Your task to perform on an android device: add a contact in the contacts app Image 0: 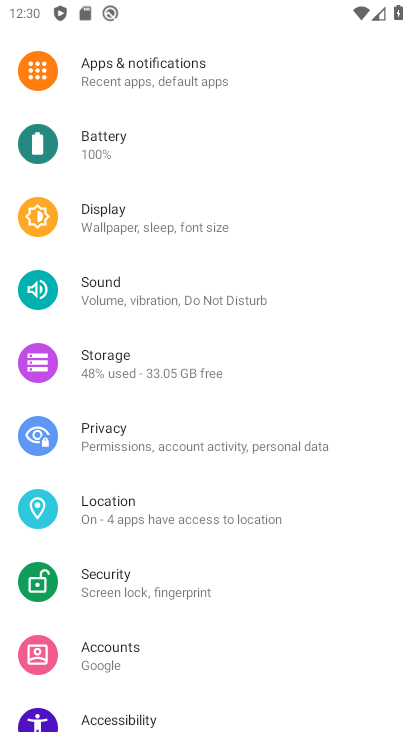
Step 0: press home button
Your task to perform on an android device: add a contact in the contacts app Image 1: 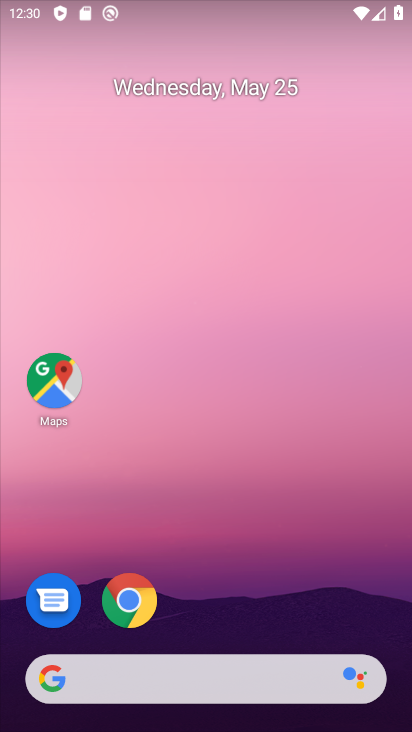
Step 1: drag from (290, 622) to (232, 258)
Your task to perform on an android device: add a contact in the contacts app Image 2: 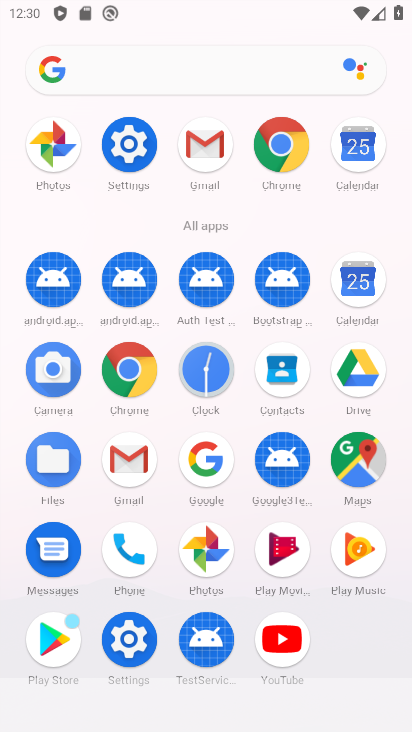
Step 2: click (283, 384)
Your task to perform on an android device: add a contact in the contacts app Image 3: 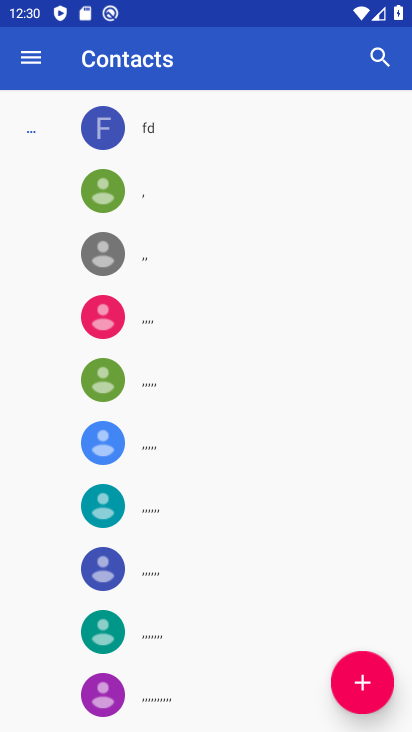
Step 3: click (356, 674)
Your task to perform on an android device: add a contact in the contacts app Image 4: 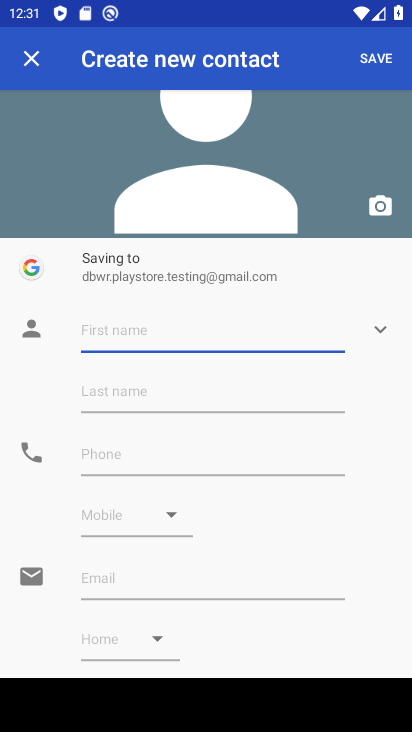
Step 4: type "bhkbkh"
Your task to perform on an android device: add a contact in the contacts app Image 5: 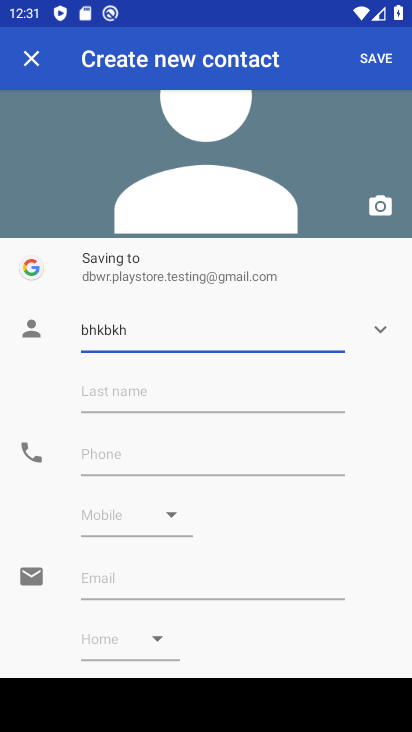
Step 5: click (267, 461)
Your task to perform on an android device: add a contact in the contacts app Image 6: 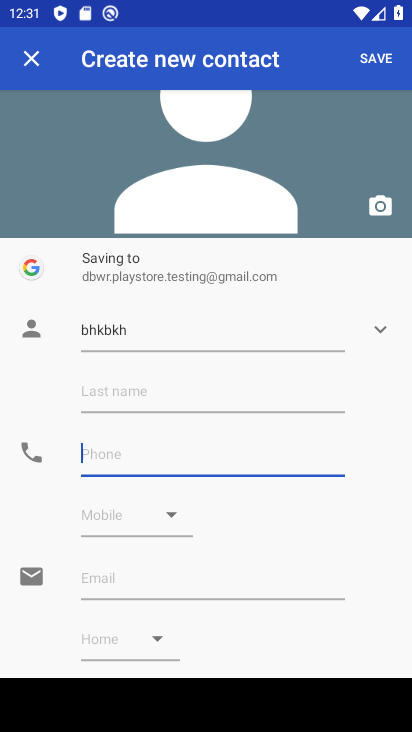
Step 6: type "98u8798879"
Your task to perform on an android device: add a contact in the contacts app Image 7: 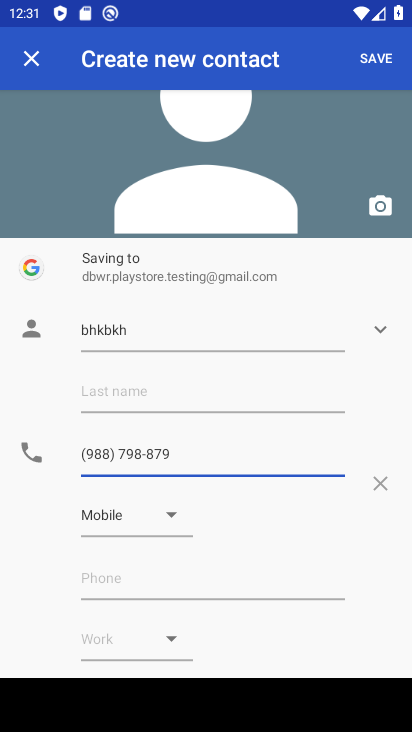
Step 7: click (381, 65)
Your task to perform on an android device: add a contact in the contacts app Image 8: 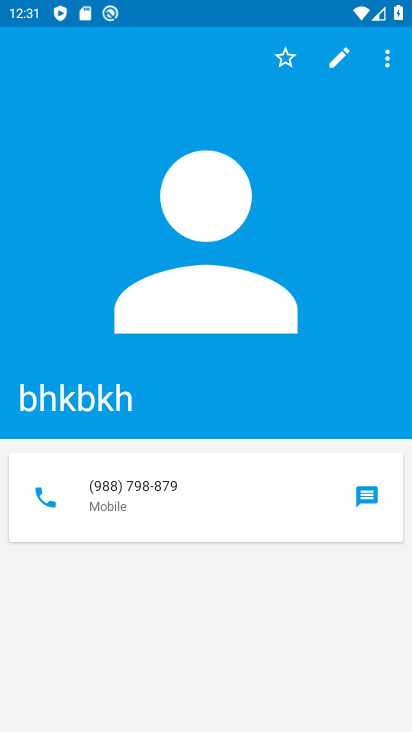
Step 8: task complete